Your task to perform on an android device: toggle location history Image 0: 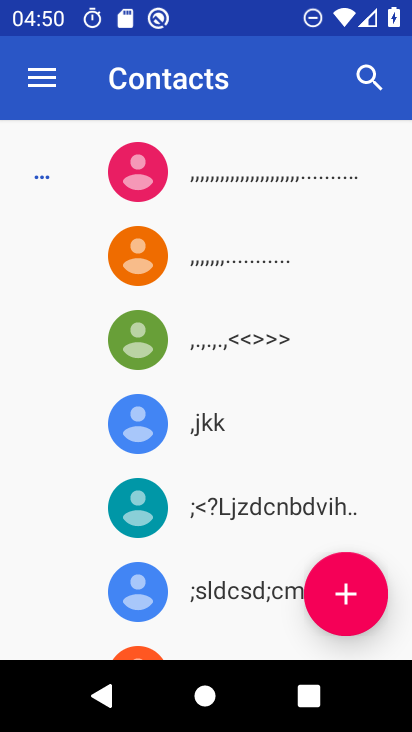
Step 0: press home button
Your task to perform on an android device: toggle location history Image 1: 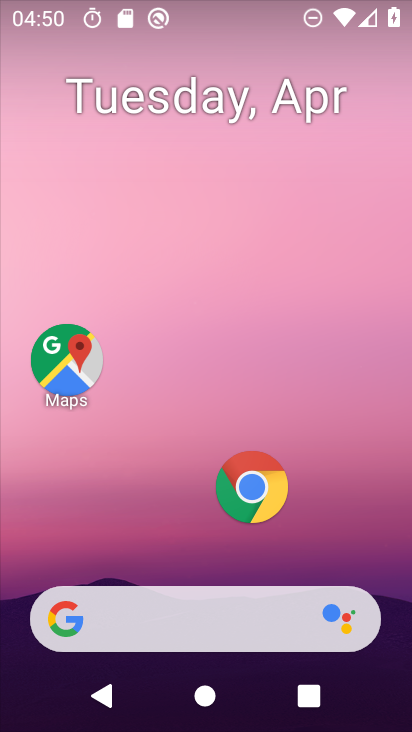
Step 1: drag from (143, 524) to (284, 1)
Your task to perform on an android device: toggle location history Image 2: 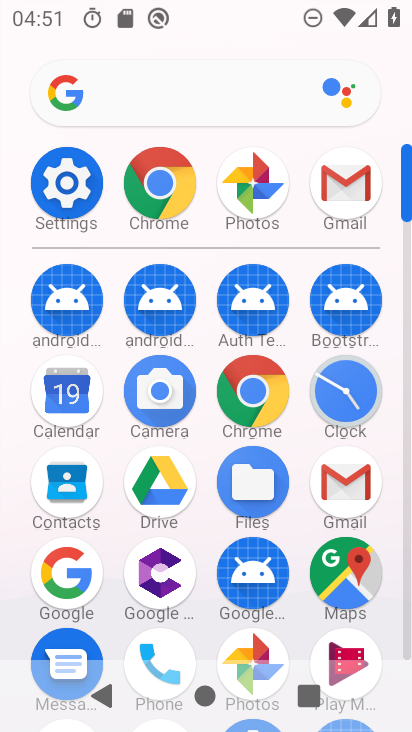
Step 2: click (44, 176)
Your task to perform on an android device: toggle location history Image 3: 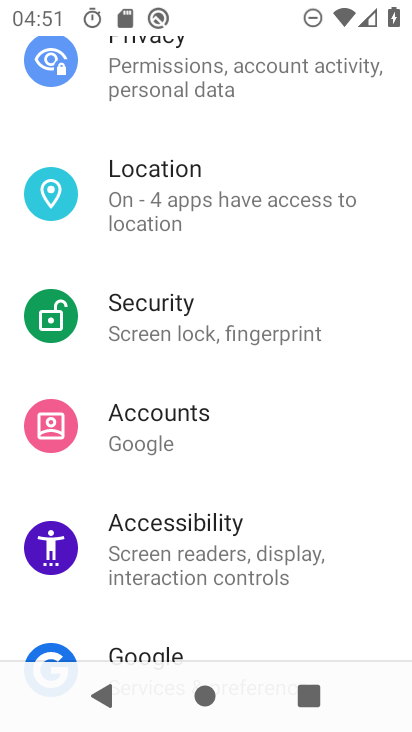
Step 3: click (183, 201)
Your task to perform on an android device: toggle location history Image 4: 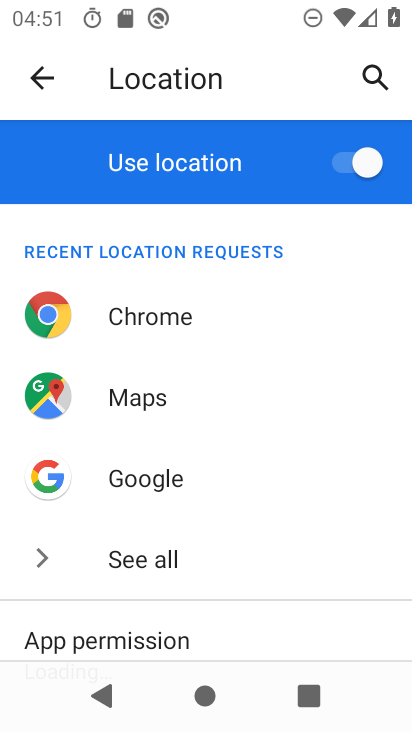
Step 4: drag from (163, 605) to (292, 116)
Your task to perform on an android device: toggle location history Image 5: 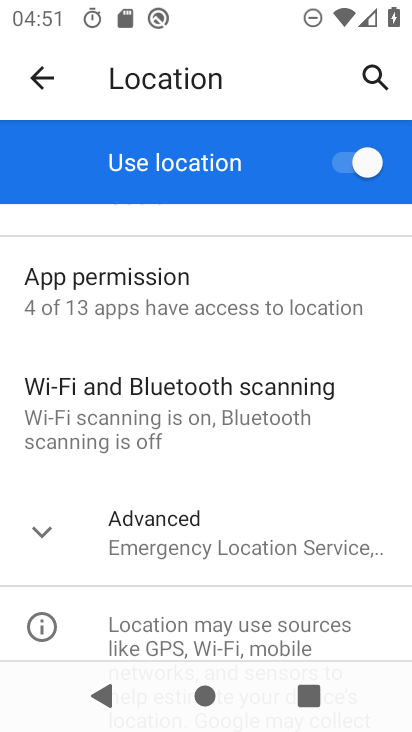
Step 5: click (212, 534)
Your task to perform on an android device: toggle location history Image 6: 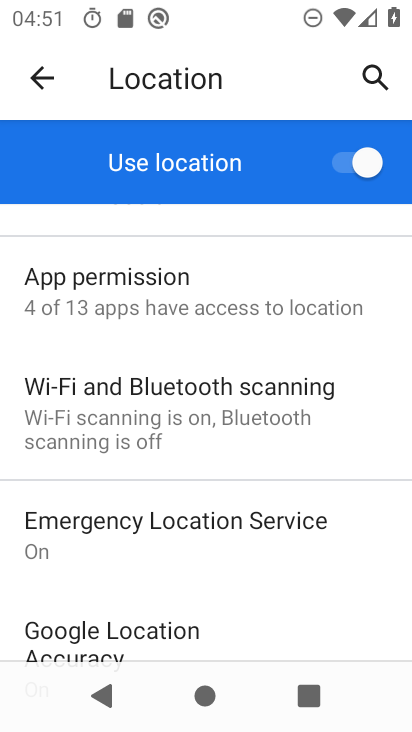
Step 6: drag from (188, 549) to (243, 160)
Your task to perform on an android device: toggle location history Image 7: 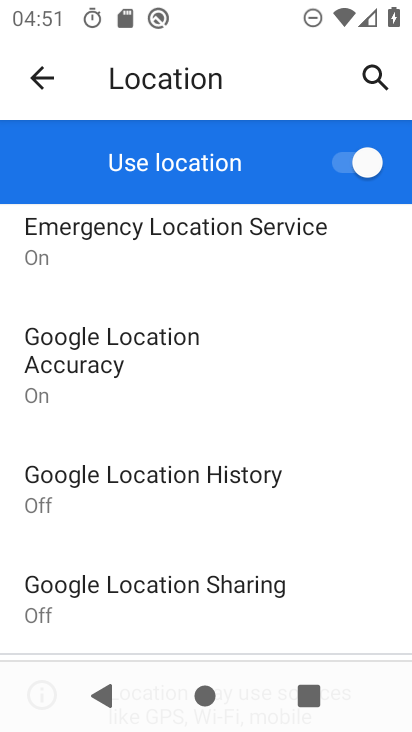
Step 7: click (130, 489)
Your task to perform on an android device: toggle location history Image 8: 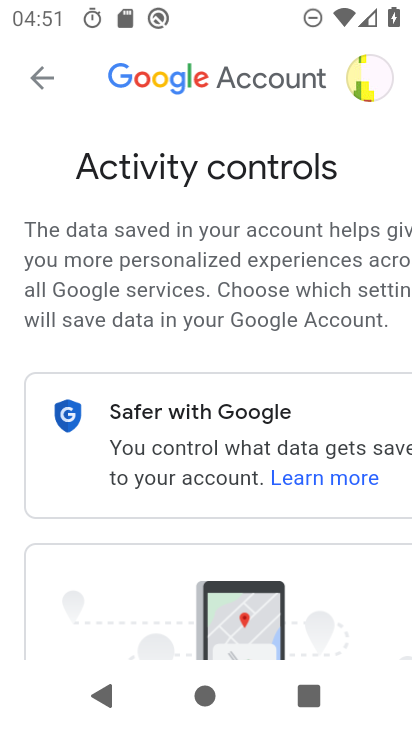
Step 8: drag from (221, 592) to (287, 168)
Your task to perform on an android device: toggle location history Image 9: 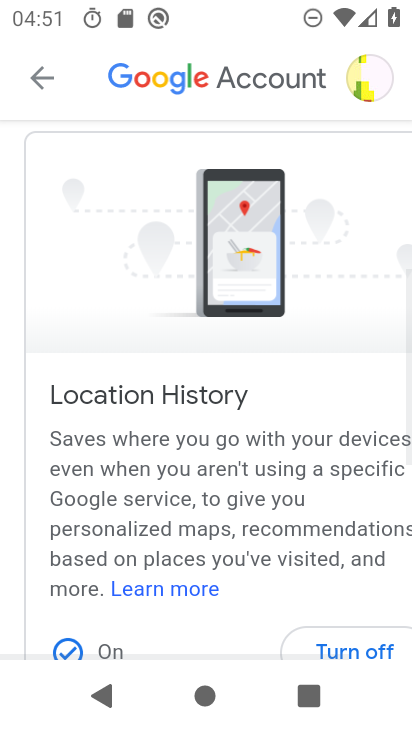
Step 9: drag from (247, 562) to (247, 301)
Your task to perform on an android device: toggle location history Image 10: 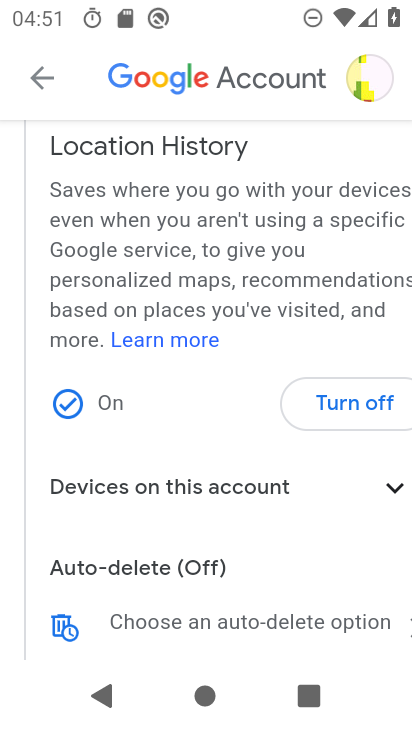
Step 10: click (335, 397)
Your task to perform on an android device: toggle location history Image 11: 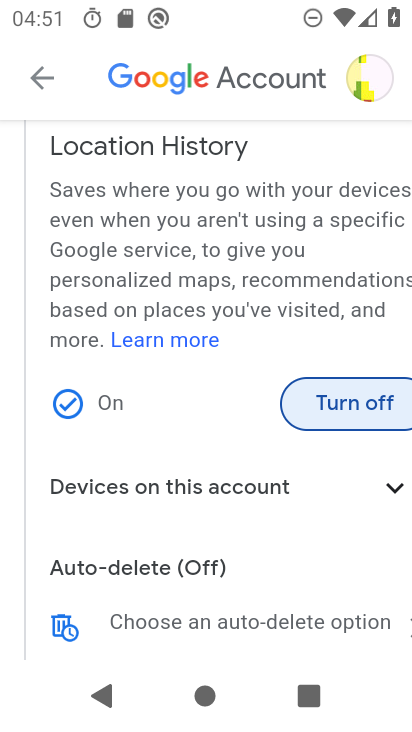
Step 11: click (330, 402)
Your task to perform on an android device: toggle location history Image 12: 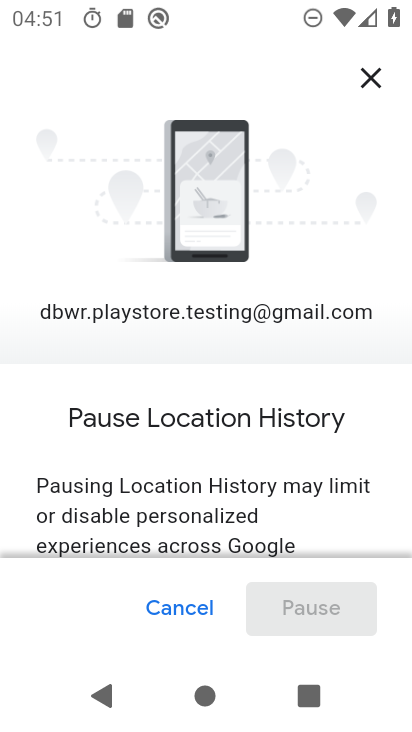
Step 12: drag from (237, 498) to (332, 33)
Your task to perform on an android device: toggle location history Image 13: 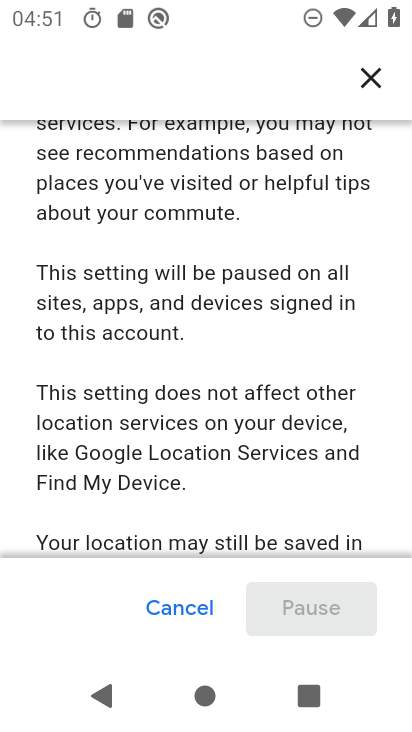
Step 13: drag from (226, 496) to (329, 15)
Your task to perform on an android device: toggle location history Image 14: 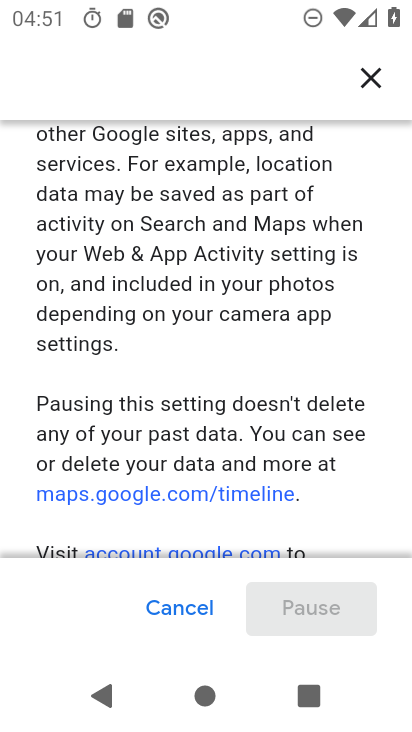
Step 14: drag from (221, 453) to (288, 53)
Your task to perform on an android device: toggle location history Image 15: 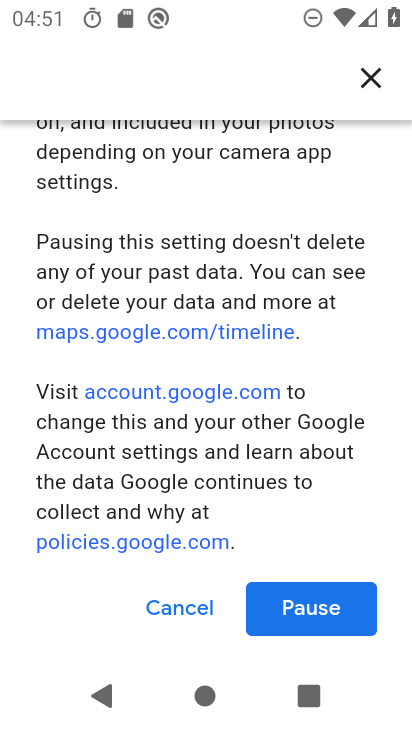
Step 15: drag from (207, 465) to (272, 101)
Your task to perform on an android device: toggle location history Image 16: 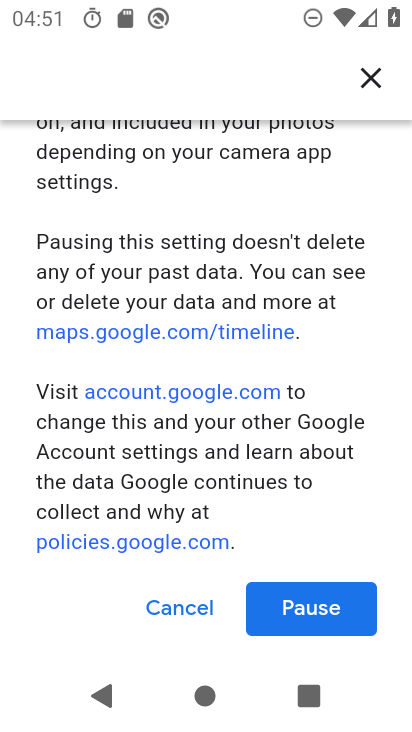
Step 16: click (324, 602)
Your task to perform on an android device: toggle location history Image 17: 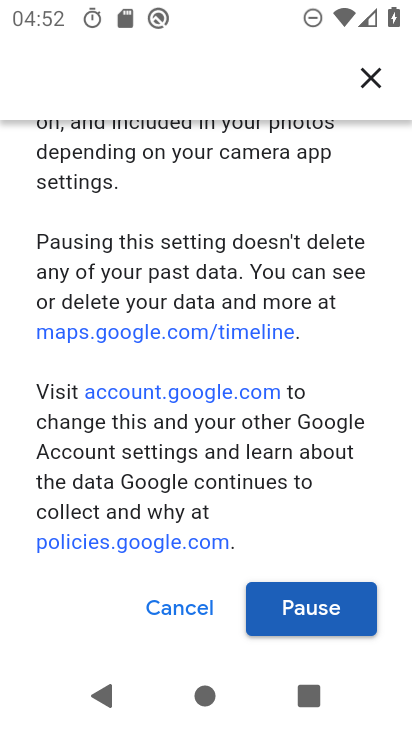
Step 17: click (312, 600)
Your task to perform on an android device: toggle location history Image 18: 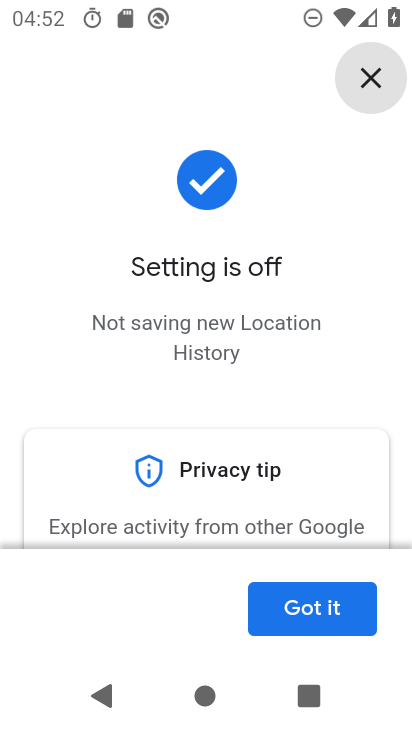
Step 18: click (298, 592)
Your task to perform on an android device: toggle location history Image 19: 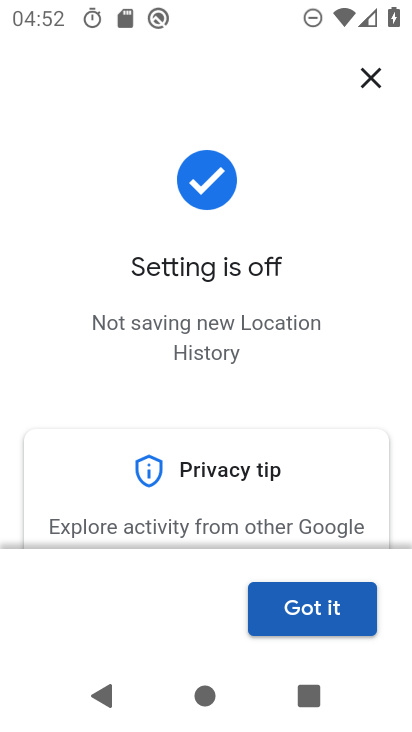
Step 19: task complete